Your task to perform on an android device: add a label to a message in the gmail app Image 0: 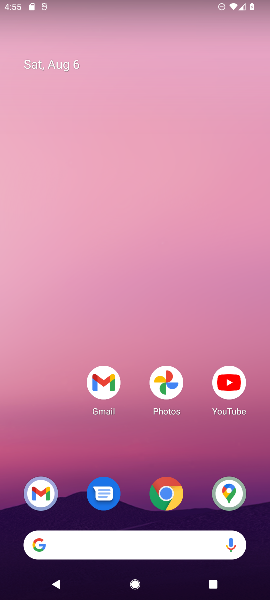
Step 0: drag from (160, 565) to (99, 209)
Your task to perform on an android device: add a label to a message in the gmail app Image 1: 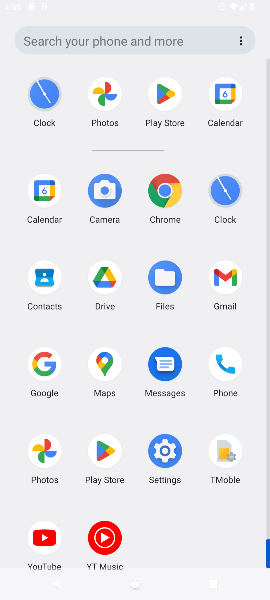
Step 1: drag from (182, 525) to (124, 212)
Your task to perform on an android device: add a label to a message in the gmail app Image 2: 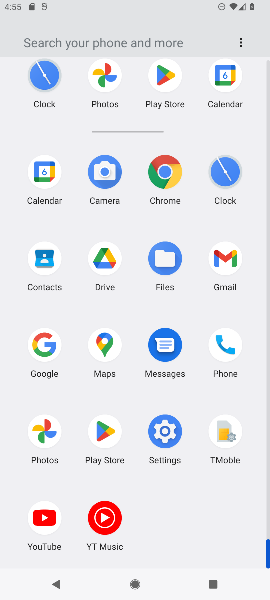
Step 2: click (223, 256)
Your task to perform on an android device: add a label to a message in the gmail app Image 3: 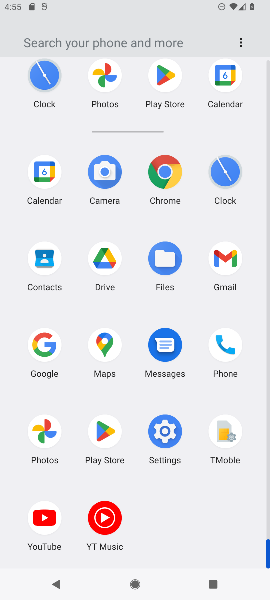
Step 3: click (231, 261)
Your task to perform on an android device: add a label to a message in the gmail app Image 4: 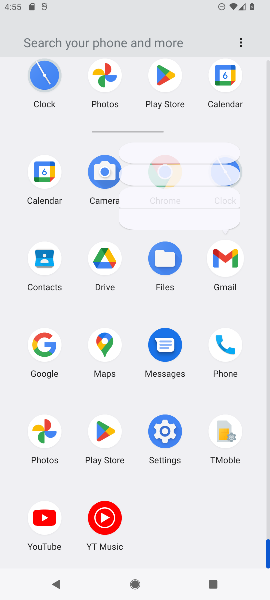
Step 4: click (230, 258)
Your task to perform on an android device: add a label to a message in the gmail app Image 5: 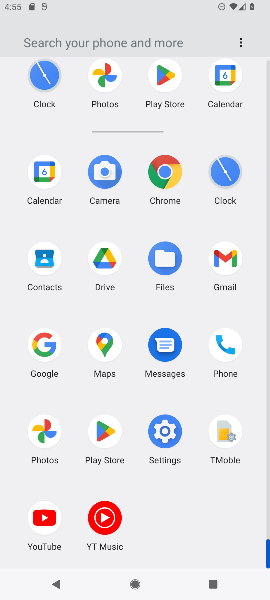
Step 5: click (225, 252)
Your task to perform on an android device: add a label to a message in the gmail app Image 6: 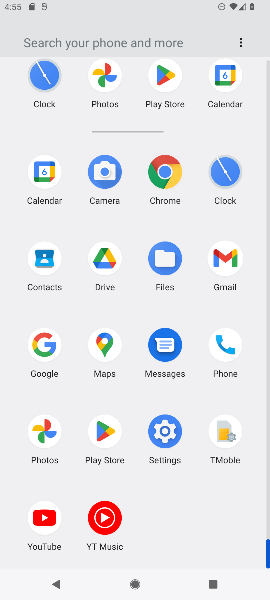
Step 6: click (220, 259)
Your task to perform on an android device: add a label to a message in the gmail app Image 7: 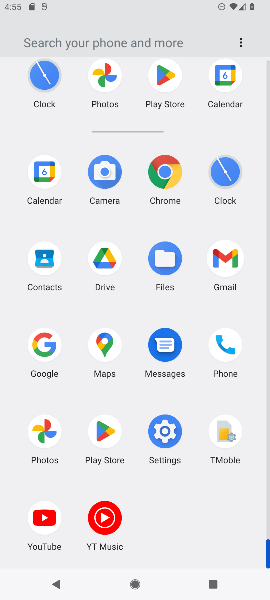
Step 7: click (220, 259)
Your task to perform on an android device: add a label to a message in the gmail app Image 8: 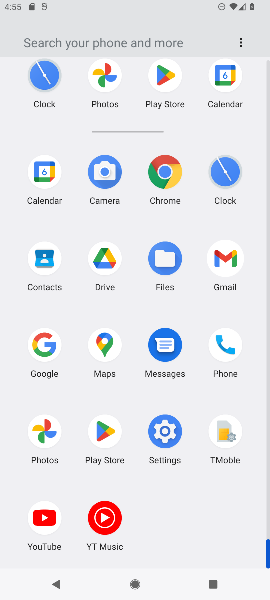
Step 8: click (220, 259)
Your task to perform on an android device: add a label to a message in the gmail app Image 9: 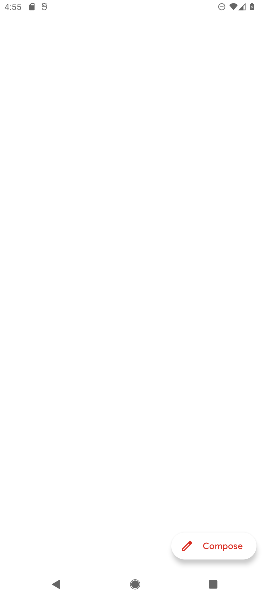
Step 9: click (223, 254)
Your task to perform on an android device: add a label to a message in the gmail app Image 10: 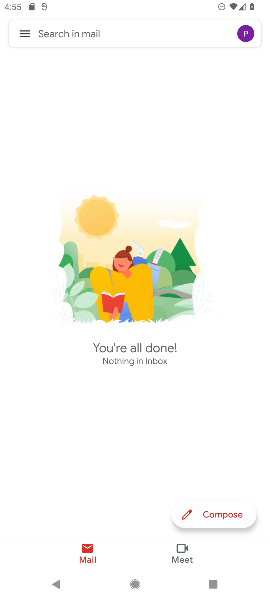
Step 10: click (26, 35)
Your task to perform on an android device: add a label to a message in the gmail app Image 11: 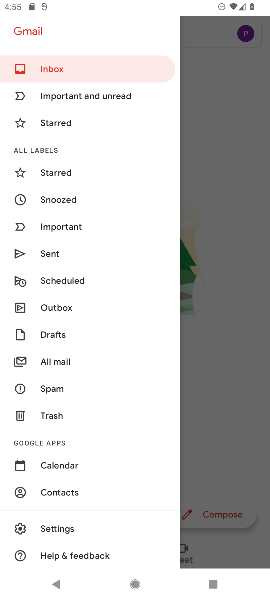
Step 11: click (57, 358)
Your task to perform on an android device: add a label to a message in the gmail app Image 12: 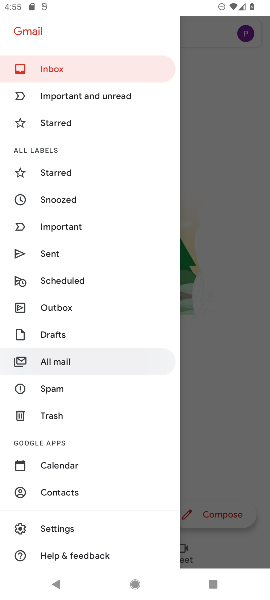
Step 12: click (58, 357)
Your task to perform on an android device: add a label to a message in the gmail app Image 13: 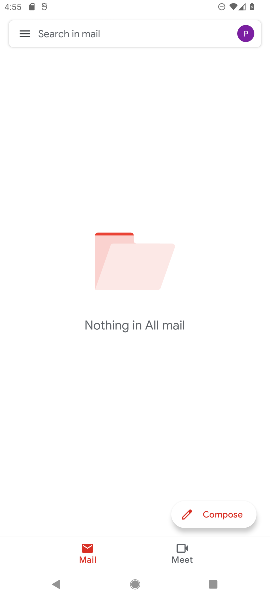
Step 13: click (32, 28)
Your task to perform on an android device: add a label to a message in the gmail app Image 14: 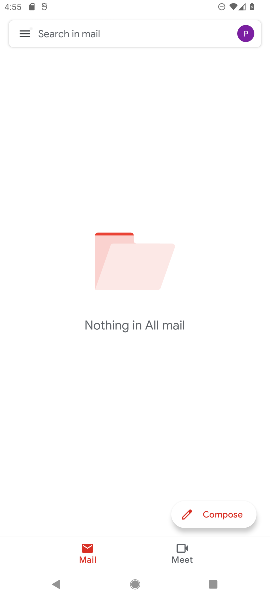
Step 14: click (32, 28)
Your task to perform on an android device: add a label to a message in the gmail app Image 15: 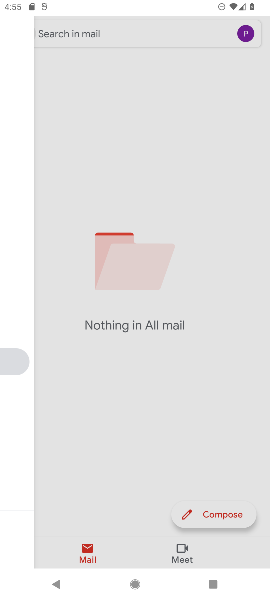
Step 15: click (31, 27)
Your task to perform on an android device: add a label to a message in the gmail app Image 16: 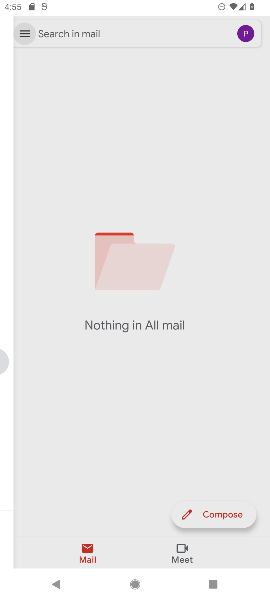
Step 16: click (31, 27)
Your task to perform on an android device: add a label to a message in the gmail app Image 17: 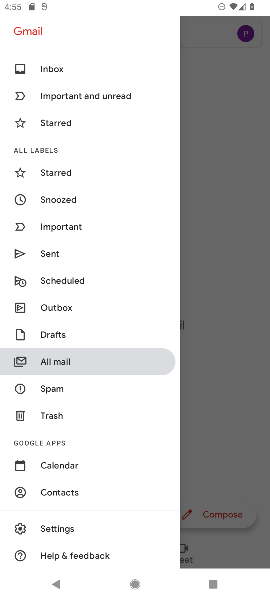
Step 17: click (56, 354)
Your task to perform on an android device: add a label to a message in the gmail app Image 18: 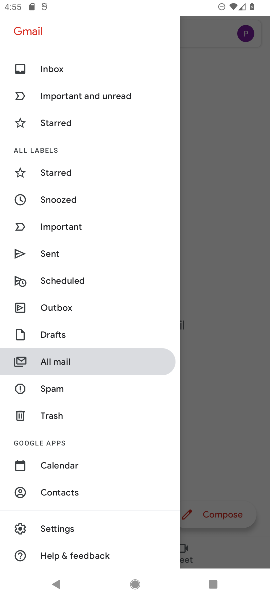
Step 18: click (56, 354)
Your task to perform on an android device: add a label to a message in the gmail app Image 19: 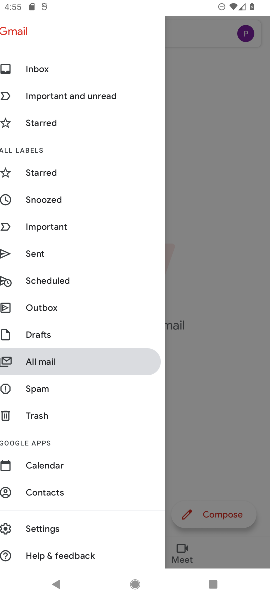
Step 19: click (59, 356)
Your task to perform on an android device: add a label to a message in the gmail app Image 20: 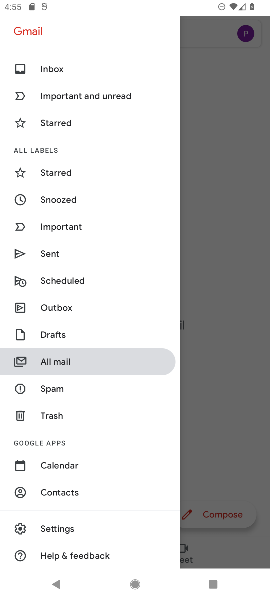
Step 20: click (62, 360)
Your task to perform on an android device: add a label to a message in the gmail app Image 21: 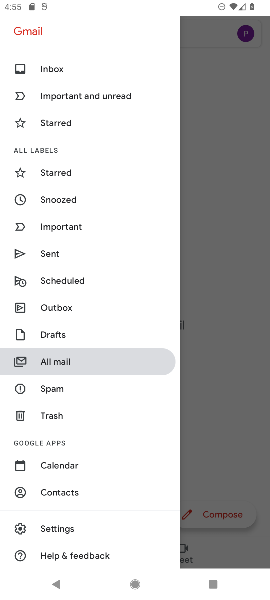
Step 21: click (62, 360)
Your task to perform on an android device: add a label to a message in the gmail app Image 22: 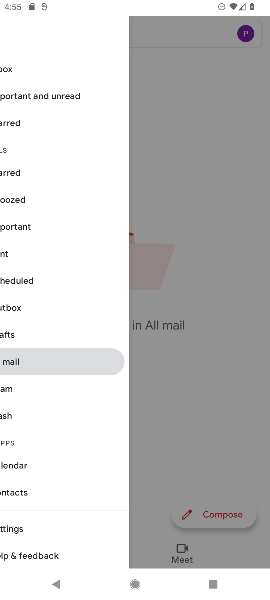
Step 22: click (62, 360)
Your task to perform on an android device: add a label to a message in the gmail app Image 23: 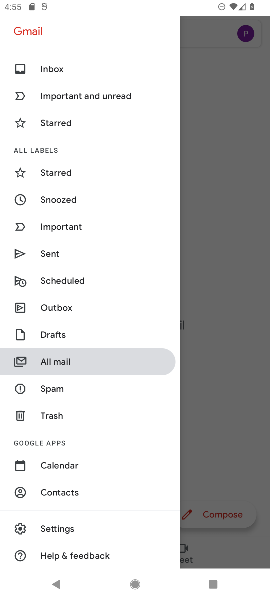
Step 23: click (73, 355)
Your task to perform on an android device: add a label to a message in the gmail app Image 24: 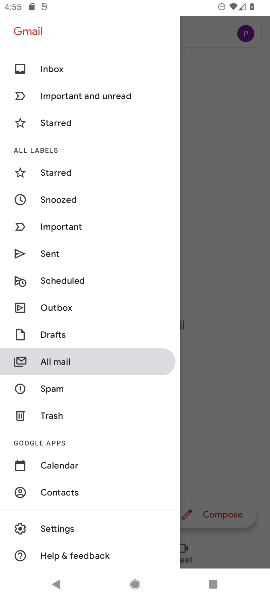
Step 24: click (74, 356)
Your task to perform on an android device: add a label to a message in the gmail app Image 25: 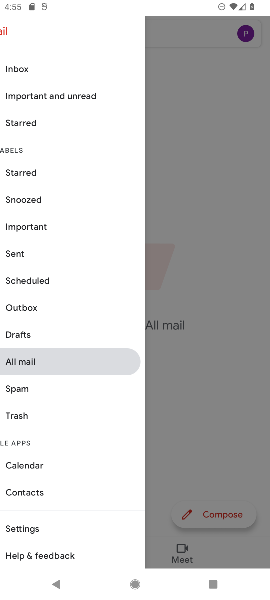
Step 25: click (79, 356)
Your task to perform on an android device: add a label to a message in the gmail app Image 26: 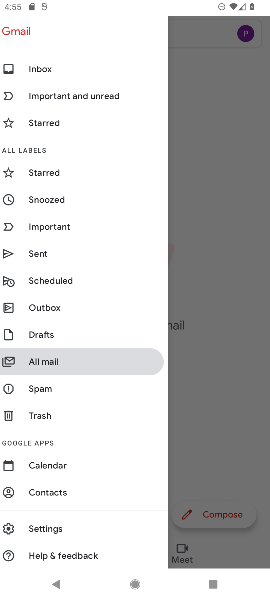
Step 26: click (81, 353)
Your task to perform on an android device: add a label to a message in the gmail app Image 27: 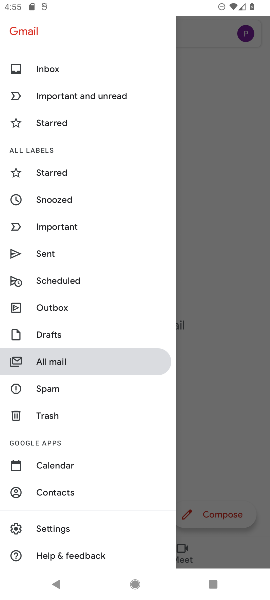
Step 27: click (81, 353)
Your task to perform on an android device: add a label to a message in the gmail app Image 28: 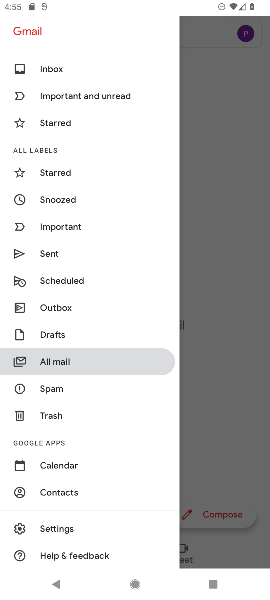
Step 28: click (81, 353)
Your task to perform on an android device: add a label to a message in the gmail app Image 29: 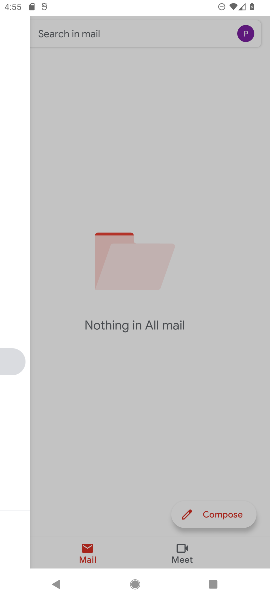
Step 29: click (233, 270)
Your task to perform on an android device: add a label to a message in the gmail app Image 30: 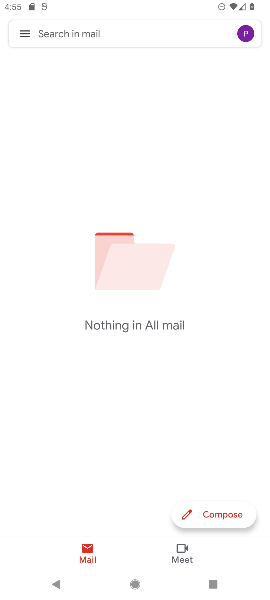
Step 30: task complete